Your task to perform on an android device: Open the phone app and click the voicemail tab. Image 0: 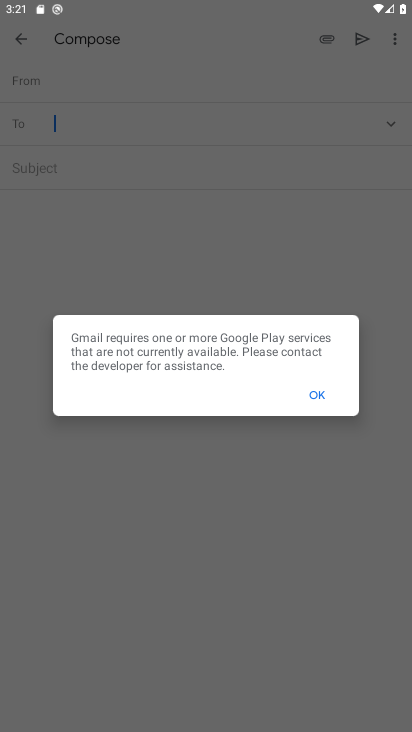
Step 0: press home button
Your task to perform on an android device: Open the phone app and click the voicemail tab. Image 1: 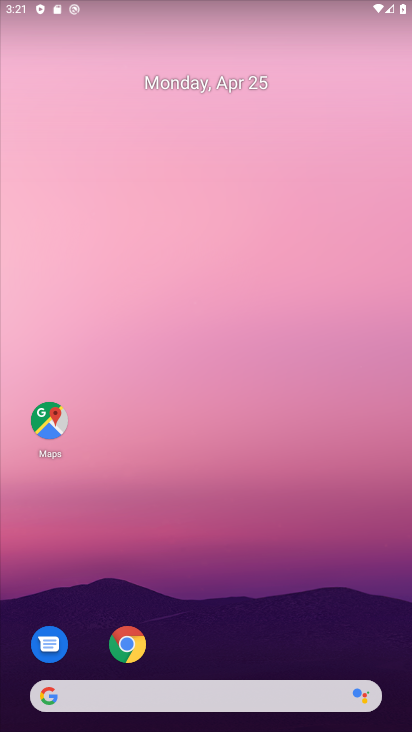
Step 1: drag from (223, 649) to (224, 31)
Your task to perform on an android device: Open the phone app and click the voicemail tab. Image 2: 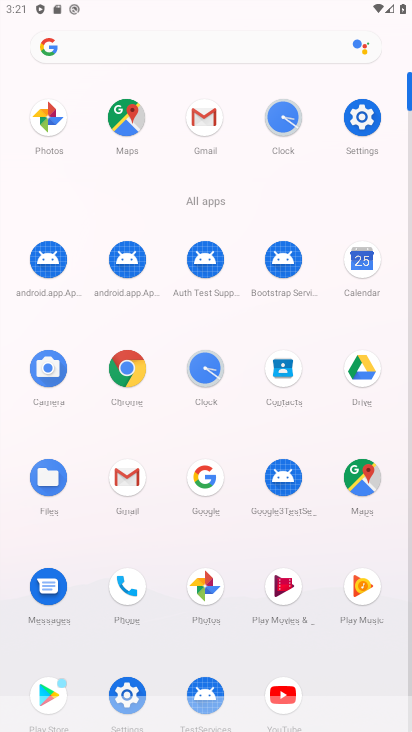
Step 2: click (124, 580)
Your task to perform on an android device: Open the phone app and click the voicemail tab. Image 3: 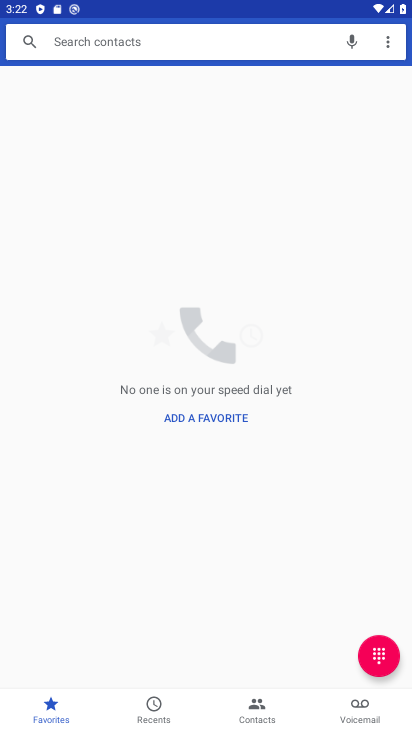
Step 3: click (358, 709)
Your task to perform on an android device: Open the phone app and click the voicemail tab. Image 4: 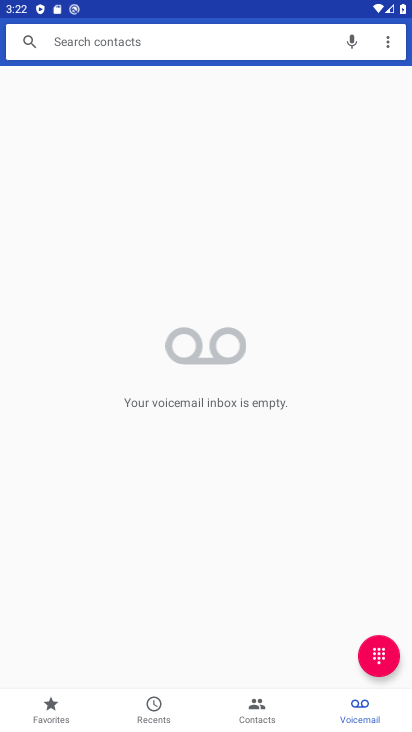
Step 4: task complete